Your task to perform on an android device: What is the recent news? Image 0: 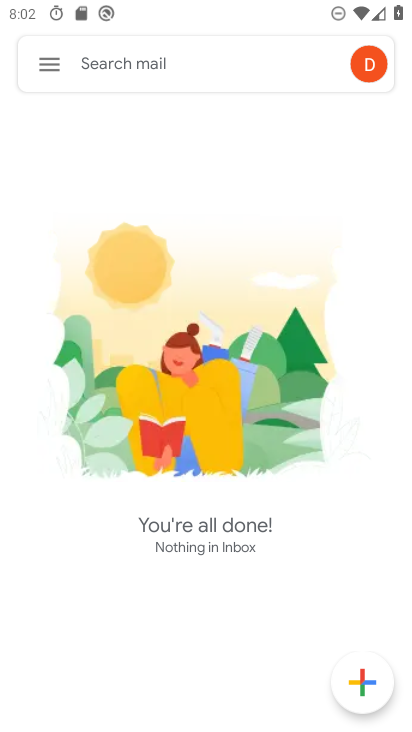
Step 0: press home button
Your task to perform on an android device: What is the recent news? Image 1: 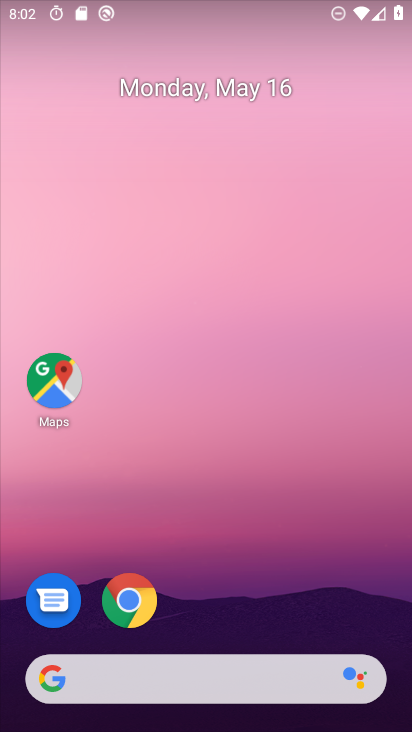
Step 1: click (51, 683)
Your task to perform on an android device: What is the recent news? Image 2: 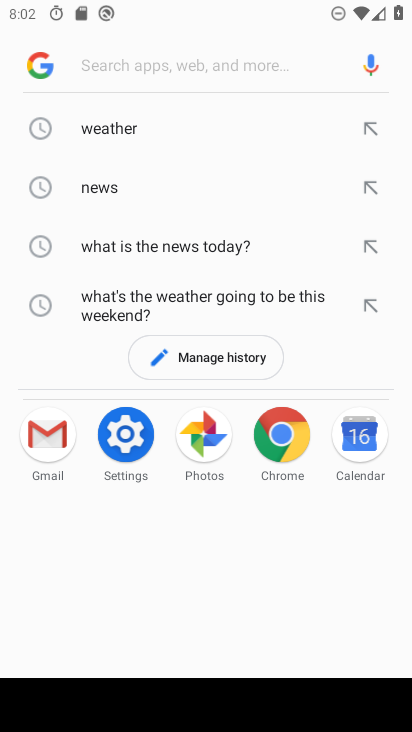
Step 2: click (189, 183)
Your task to perform on an android device: What is the recent news? Image 3: 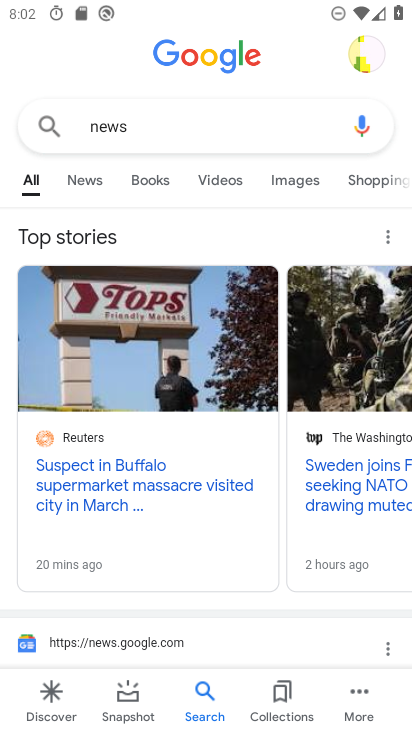
Step 3: click (83, 183)
Your task to perform on an android device: What is the recent news? Image 4: 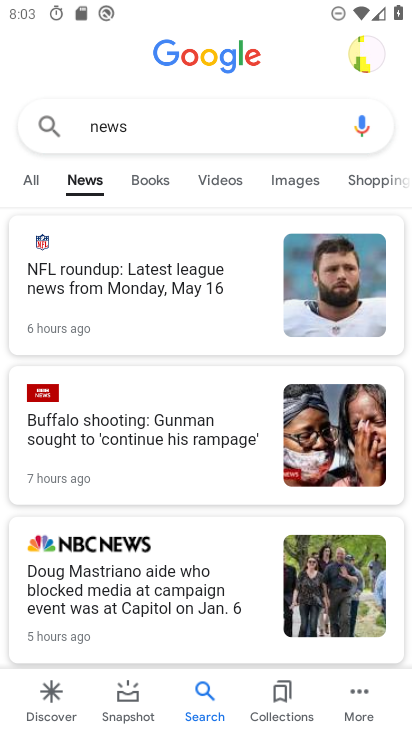
Step 4: task complete